Your task to perform on an android device: uninstall "Google Calendar" Image 0: 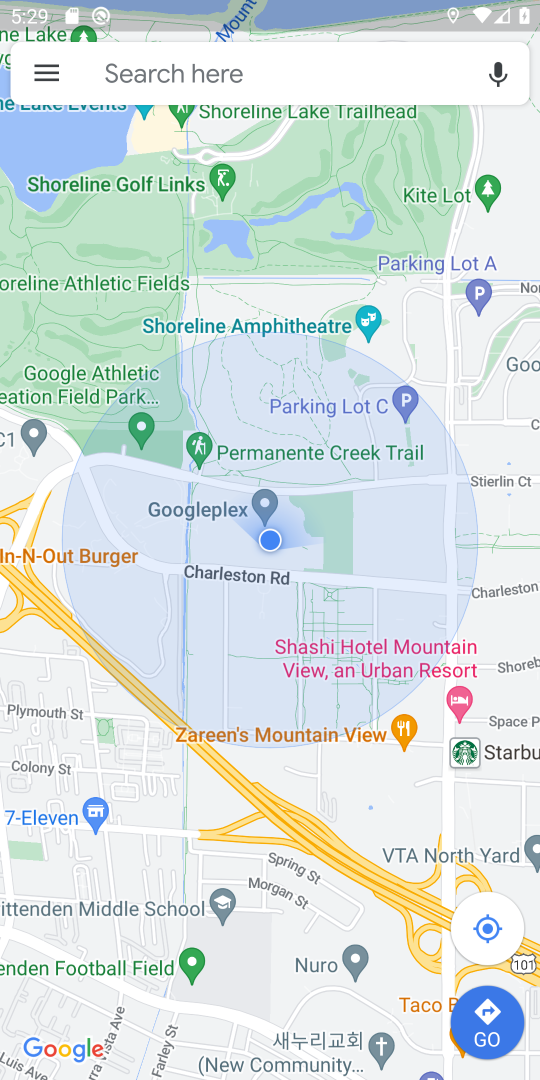
Step 0: press home button
Your task to perform on an android device: uninstall "Google Calendar" Image 1: 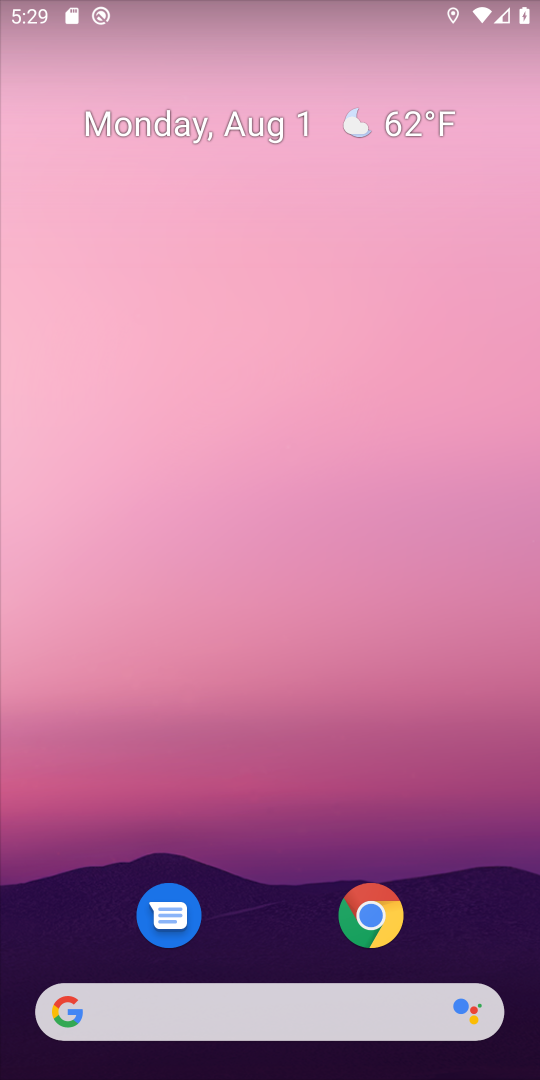
Step 1: drag from (91, 692) to (195, 52)
Your task to perform on an android device: uninstall "Google Calendar" Image 2: 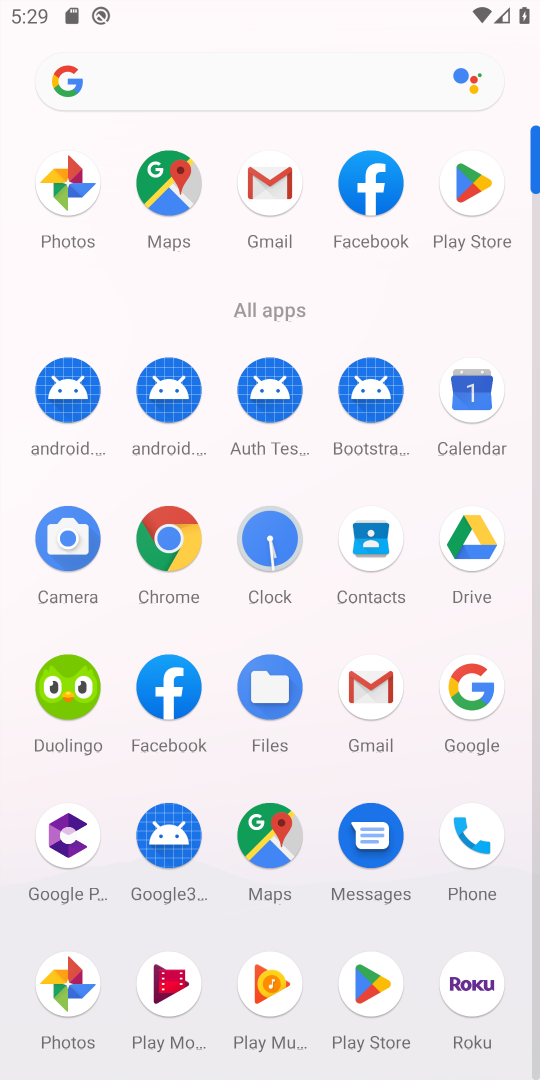
Step 2: click (467, 186)
Your task to perform on an android device: uninstall "Google Calendar" Image 3: 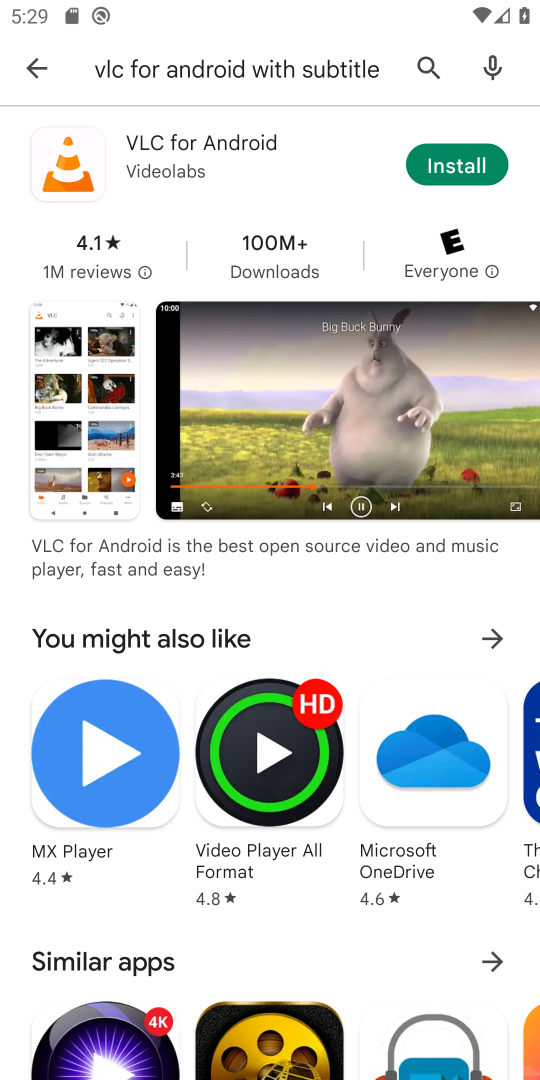
Step 3: click (425, 68)
Your task to perform on an android device: uninstall "Google Calendar" Image 4: 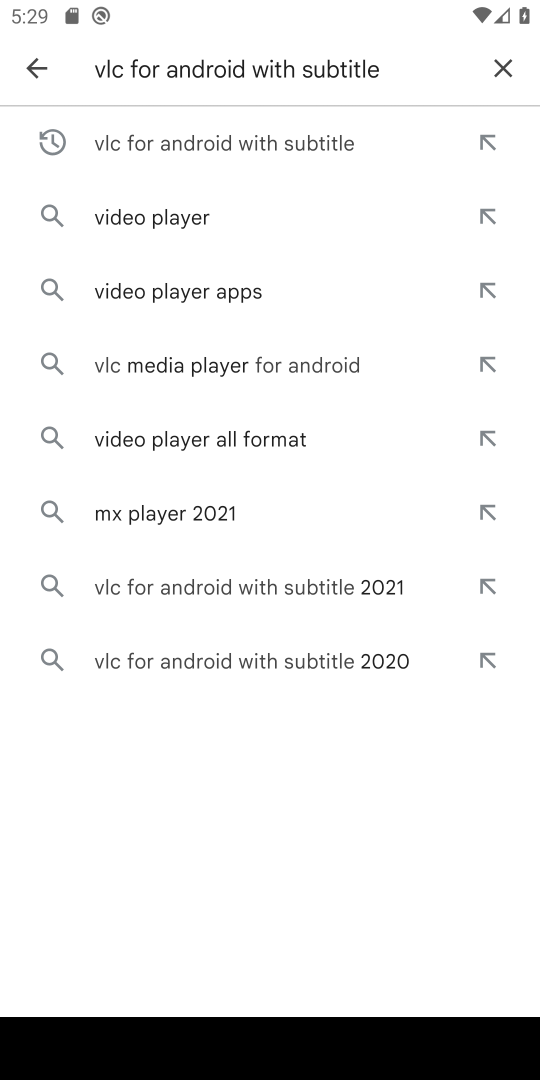
Step 4: click (510, 60)
Your task to perform on an android device: uninstall "Google Calendar" Image 5: 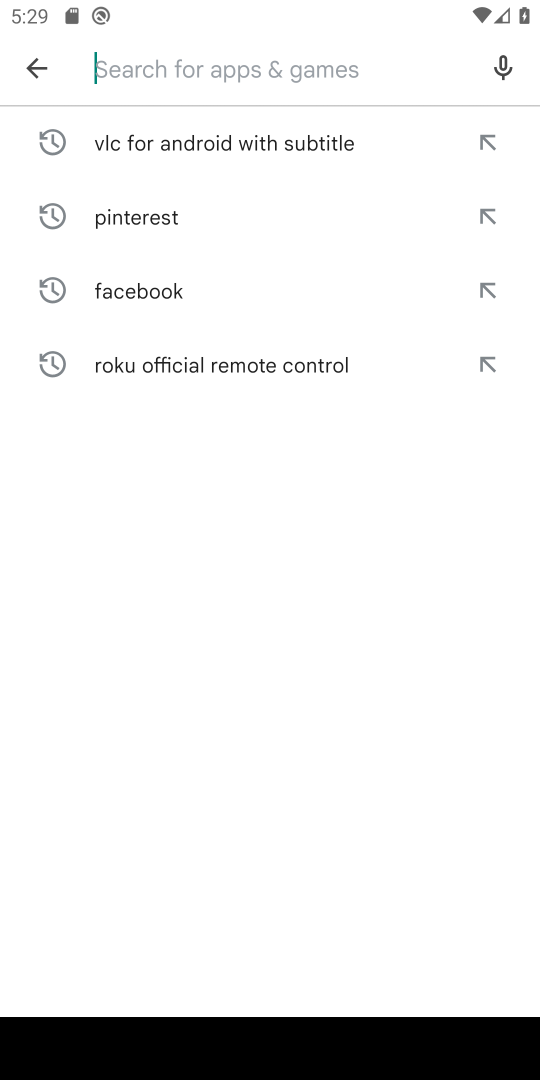
Step 5: click (304, 64)
Your task to perform on an android device: uninstall "Google Calendar" Image 6: 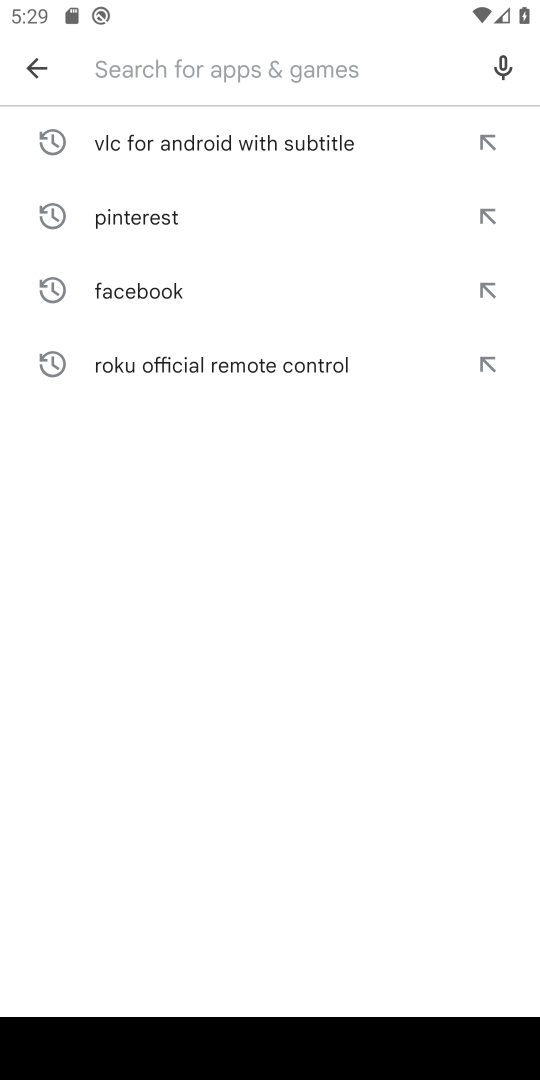
Step 6: type "google calender"
Your task to perform on an android device: uninstall "Google Calendar" Image 7: 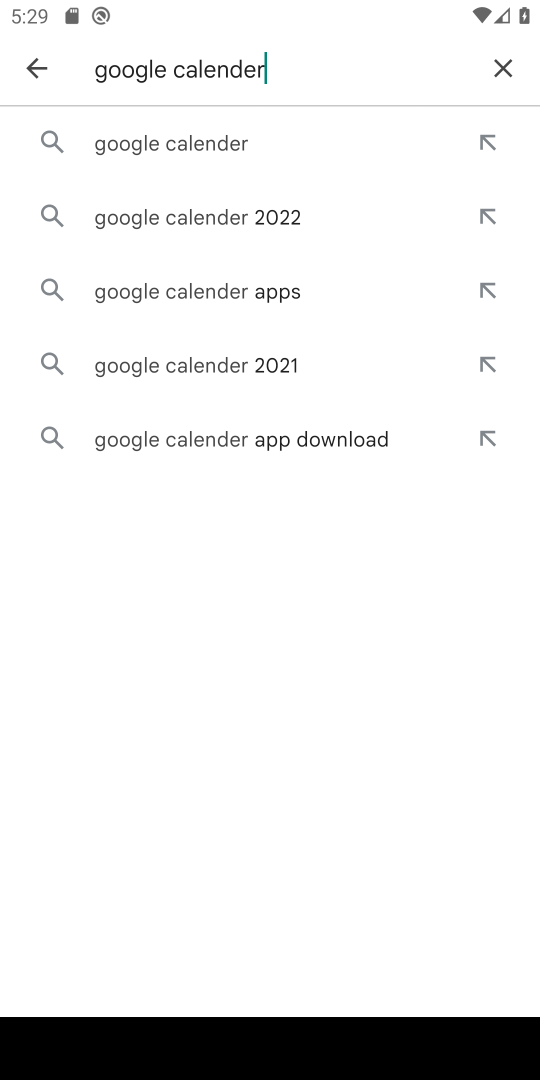
Step 7: click (139, 145)
Your task to perform on an android device: uninstall "Google Calendar" Image 8: 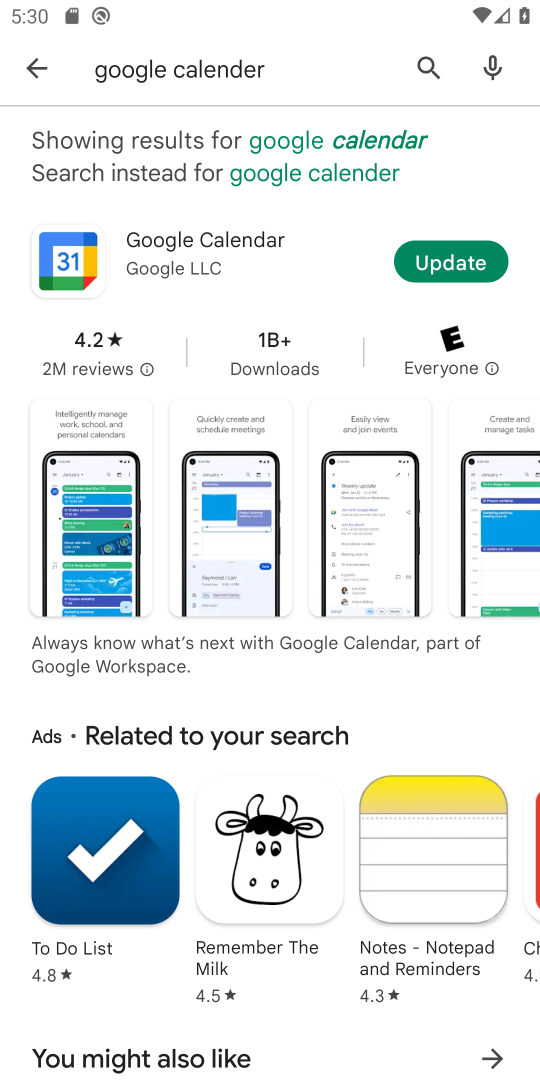
Step 8: click (212, 243)
Your task to perform on an android device: uninstall "Google Calendar" Image 9: 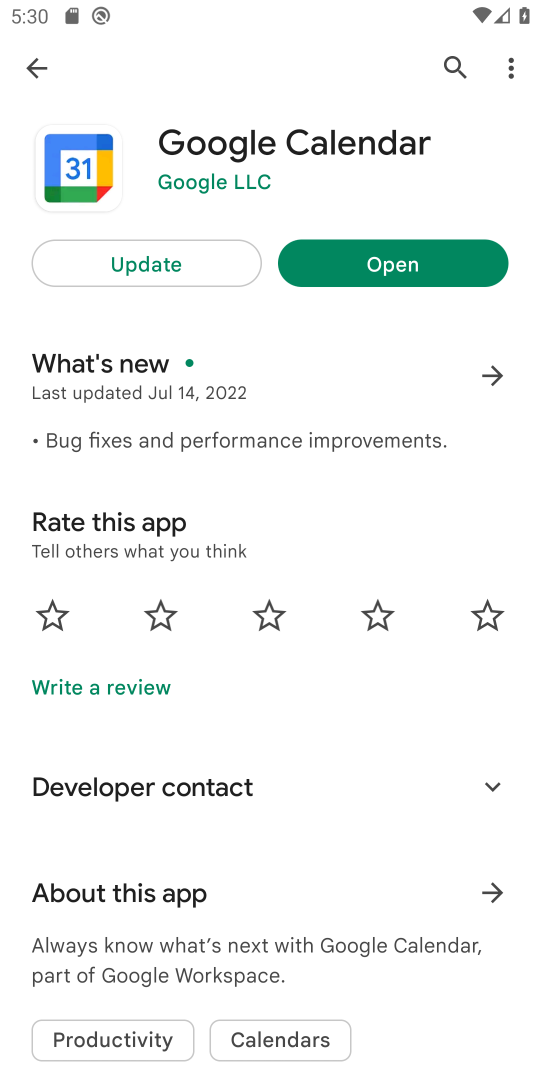
Step 9: task complete